Your task to perform on an android device: Open Google Maps and go to "Timeline" Image 0: 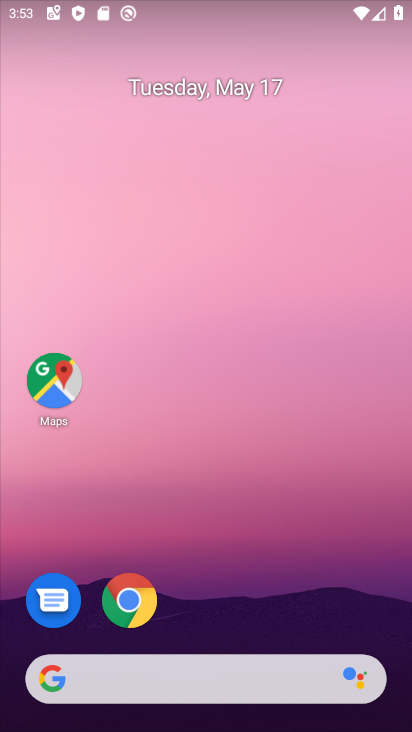
Step 0: drag from (212, 630) to (282, 5)
Your task to perform on an android device: Open Google Maps and go to "Timeline" Image 1: 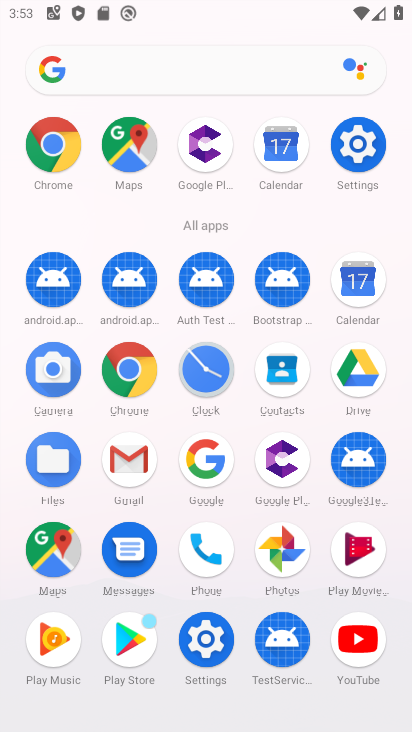
Step 1: click (42, 563)
Your task to perform on an android device: Open Google Maps and go to "Timeline" Image 2: 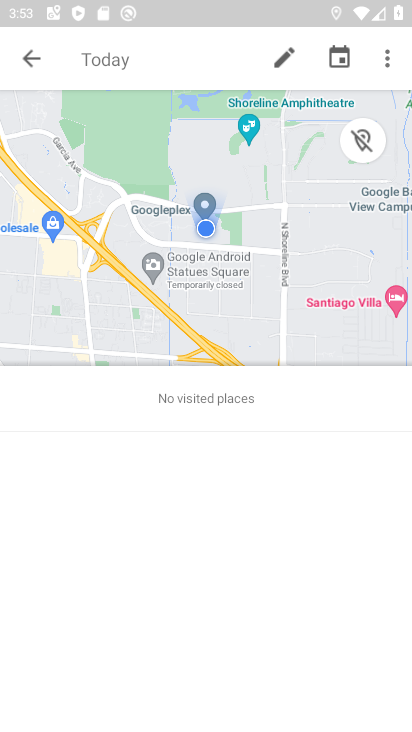
Step 2: task complete